Your task to perform on an android device: Go to Reddit.com Image 0: 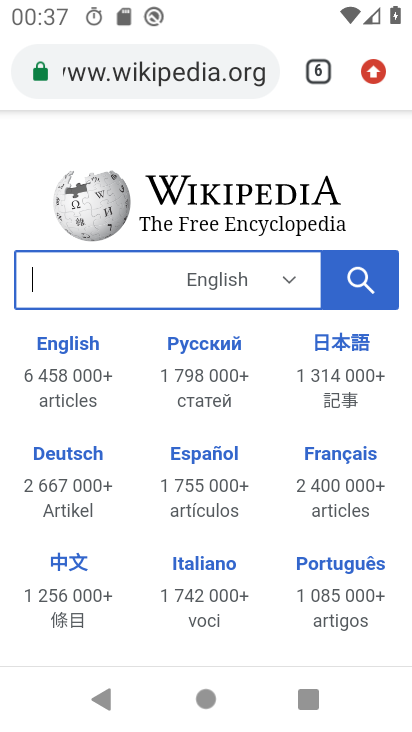
Step 0: click (166, 65)
Your task to perform on an android device: Go to Reddit.com Image 1: 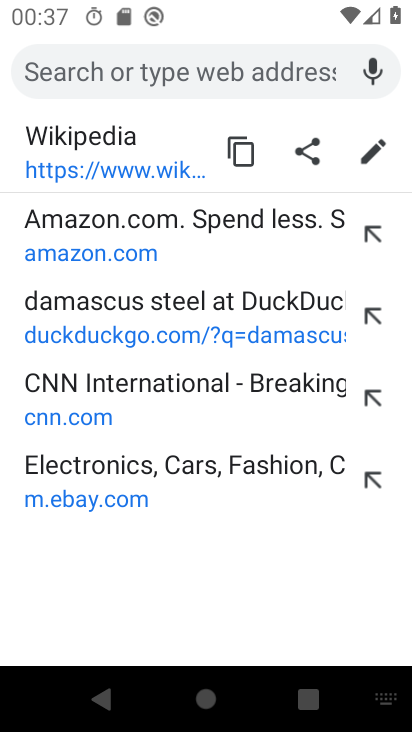
Step 1: type "reddit.com"
Your task to perform on an android device: Go to Reddit.com Image 2: 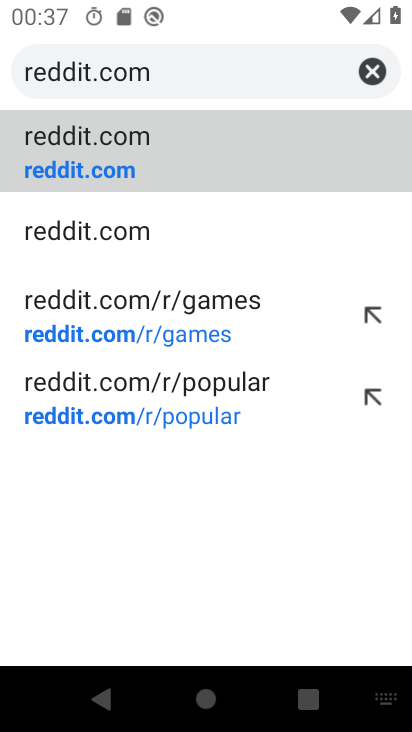
Step 2: click (81, 151)
Your task to perform on an android device: Go to Reddit.com Image 3: 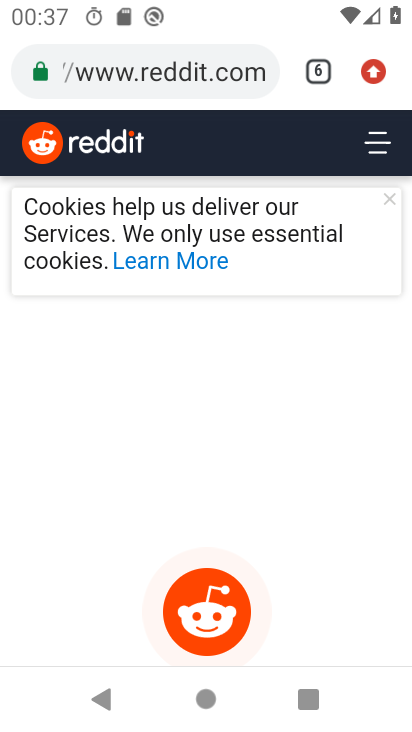
Step 3: task complete